Your task to perform on an android device: Is it going to rain today? Image 0: 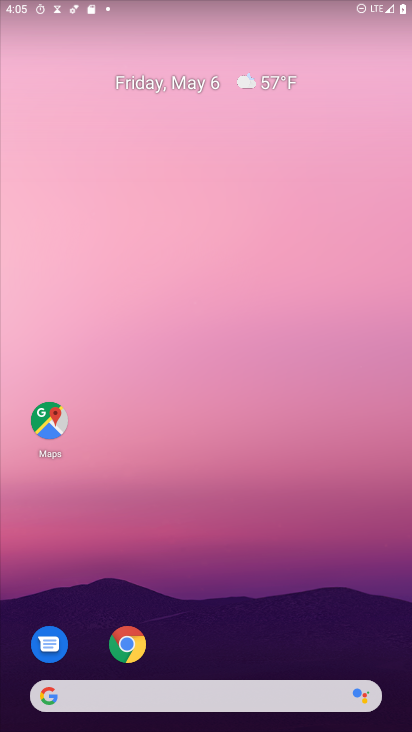
Step 0: click (246, 81)
Your task to perform on an android device: Is it going to rain today? Image 1: 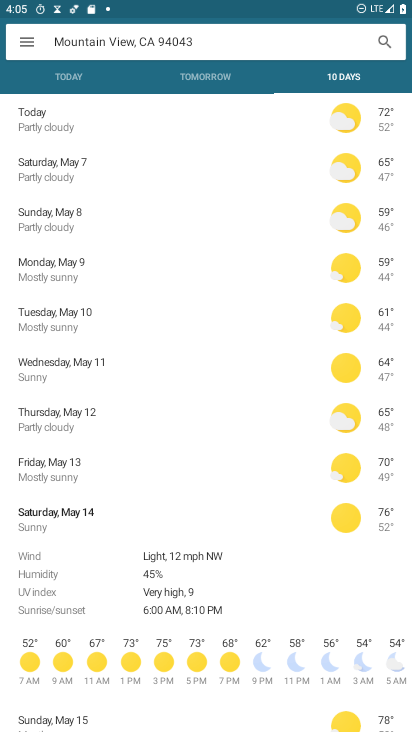
Step 1: click (65, 78)
Your task to perform on an android device: Is it going to rain today? Image 2: 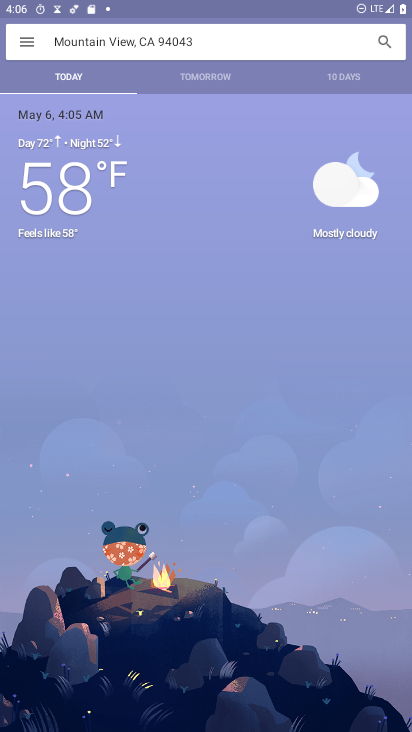
Step 2: task complete